Your task to perform on an android device: snooze an email in the gmail app Image 0: 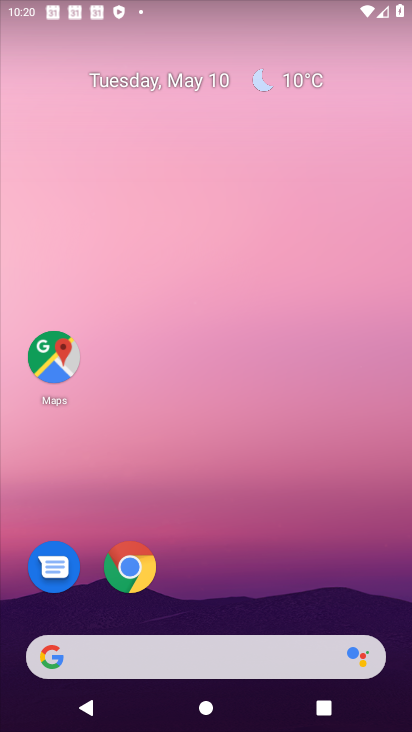
Step 0: drag from (249, 664) to (234, 79)
Your task to perform on an android device: snooze an email in the gmail app Image 1: 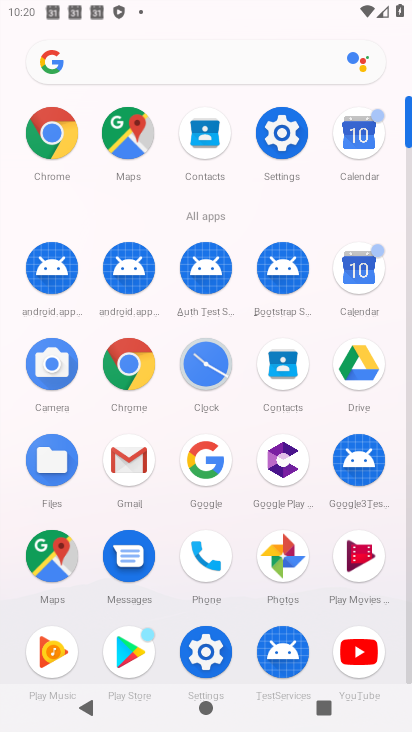
Step 1: click (130, 459)
Your task to perform on an android device: snooze an email in the gmail app Image 2: 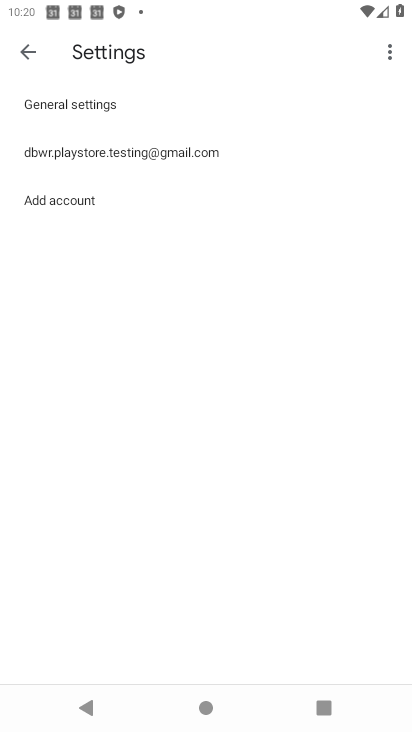
Step 2: press back button
Your task to perform on an android device: snooze an email in the gmail app Image 3: 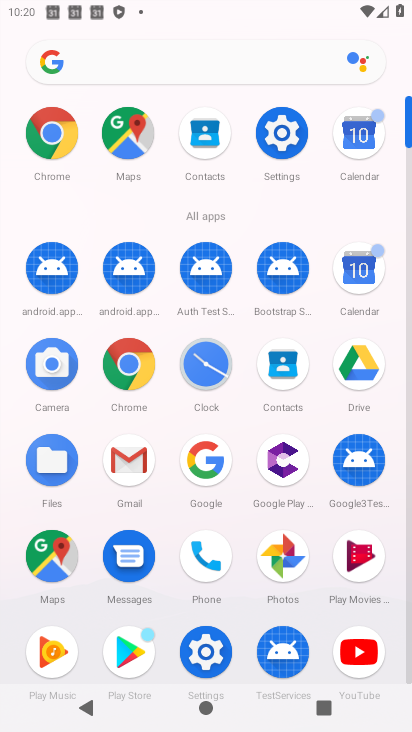
Step 3: click (118, 451)
Your task to perform on an android device: snooze an email in the gmail app Image 4: 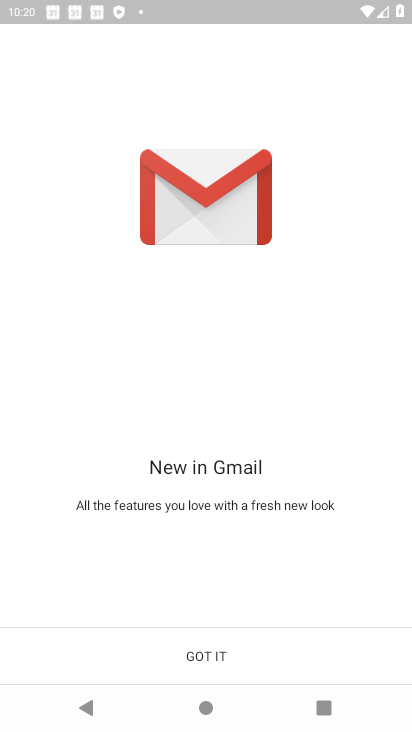
Step 4: click (227, 658)
Your task to perform on an android device: snooze an email in the gmail app Image 5: 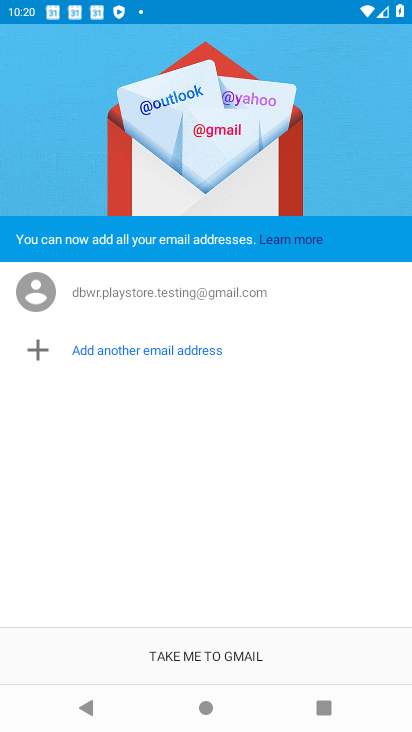
Step 5: click (227, 654)
Your task to perform on an android device: snooze an email in the gmail app Image 6: 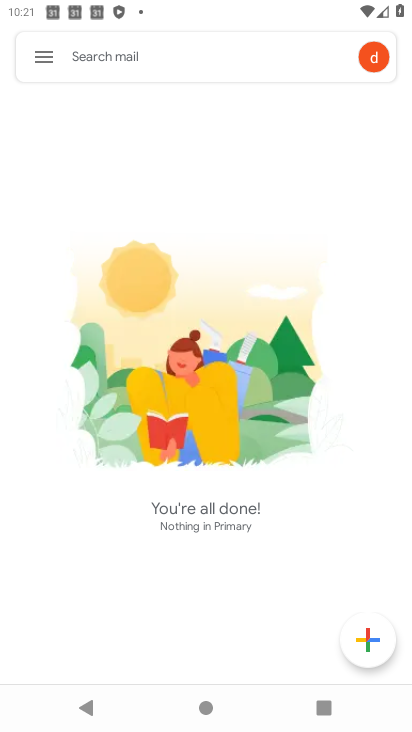
Step 6: click (49, 57)
Your task to perform on an android device: snooze an email in the gmail app Image 7: 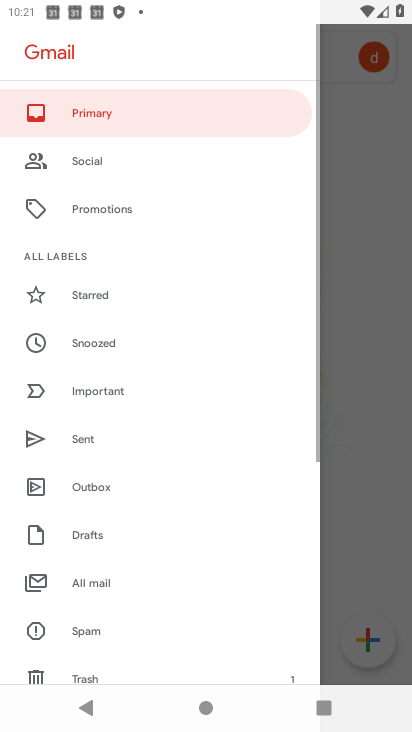
Step 7: click (41, 55)
Your task to perform on an android device: snooze an email in the gmail app Image 8: 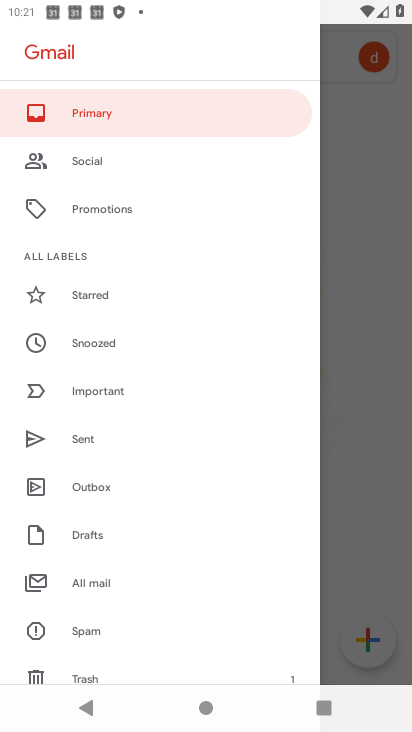
Step 8: click (112, 340)
Your task to perform on an android device: snooze an email in the gmail app Image 9: 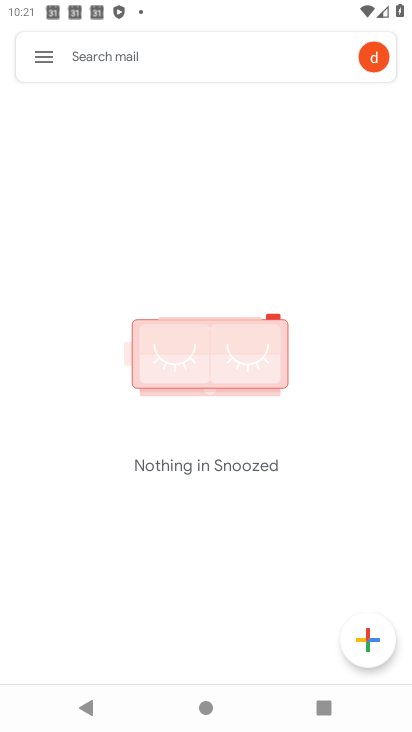
Step 9: task complete